Your task to perform on an android device: turn on data saver in the chrome app Image 0: 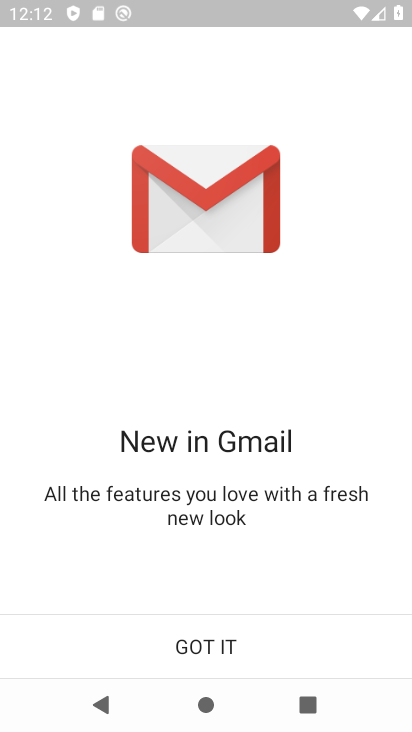
Step 0: press home button
Your task to perform on an android device: turn on data saver in the chrome app Image 1: 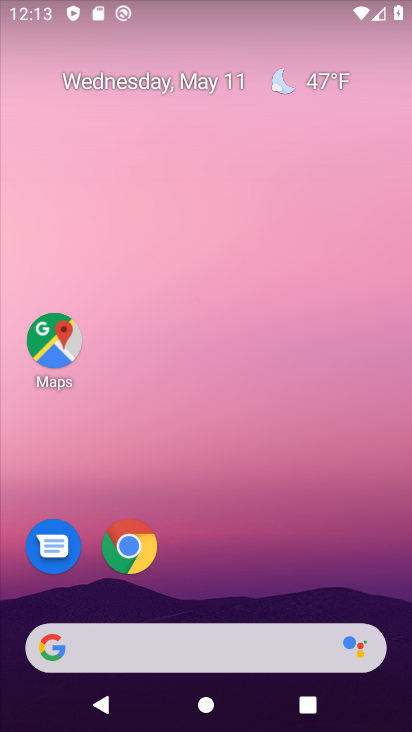
Step 1: click (120, 546)
Your task to perform on an android device: turn on data saver in the chrome app Image 2: 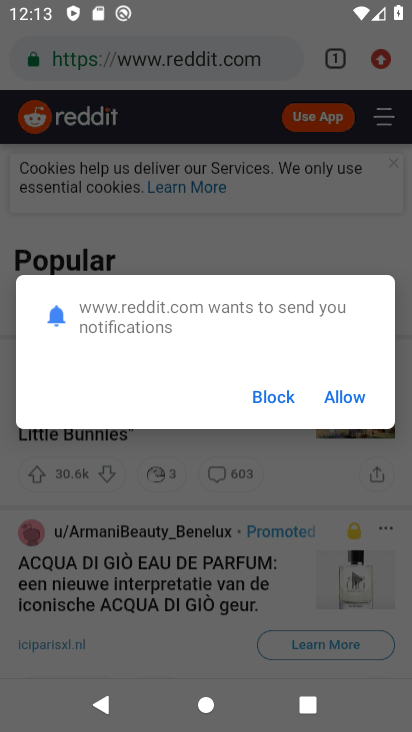
Step 2: click (271, 402)
Your task to perform on an android device: turn on data saver in the chrome app Image 3: 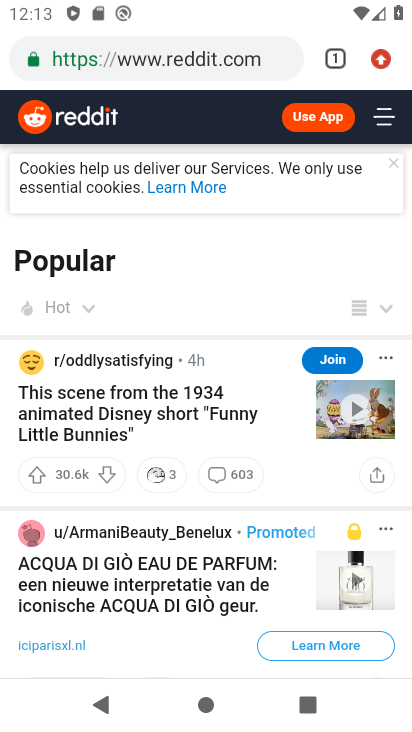
Step 3: click (381, 56)
Your task to perform on an android device: turn on data saver in the chrome app Image 4: 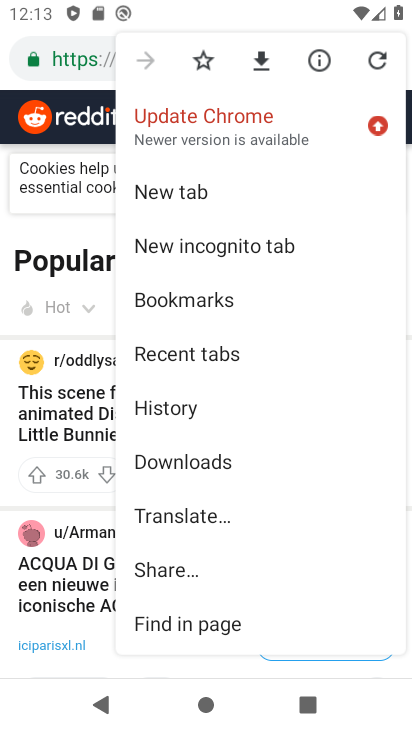
Step 4: drag from (211, 565) to (249, 294)
Your task to perform on an android device: turn on data saver in the chrome app Image 5: 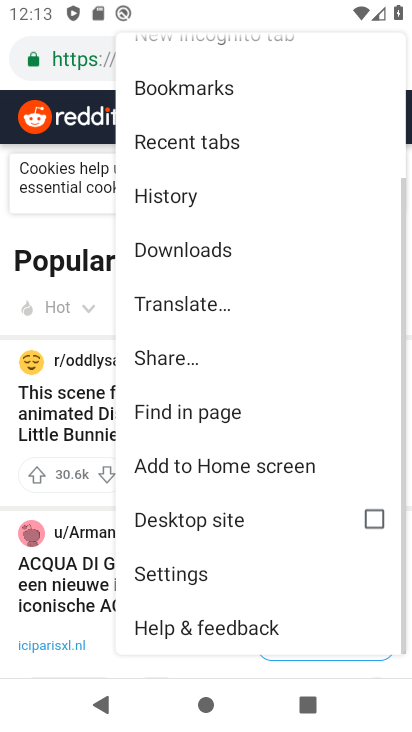
Step 5: click (204, 575)
Your task to perform on an android device: turn on data saver in the chrome app Image 6: 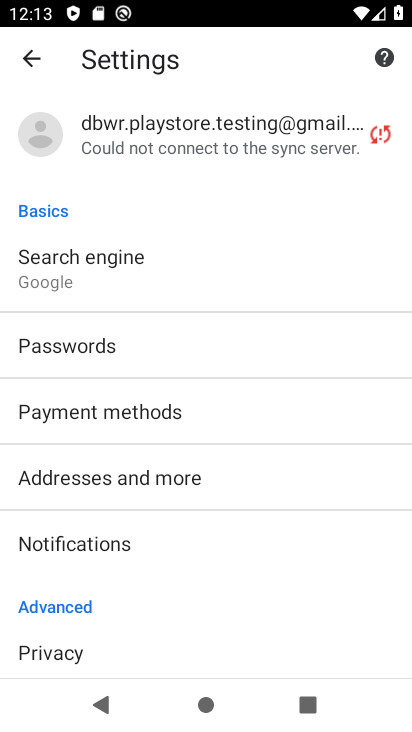
Step 6: drag from (116, 635) to (237, 200)
Your task to perform on an android device: turn on data saver in the chrome app Image 7: 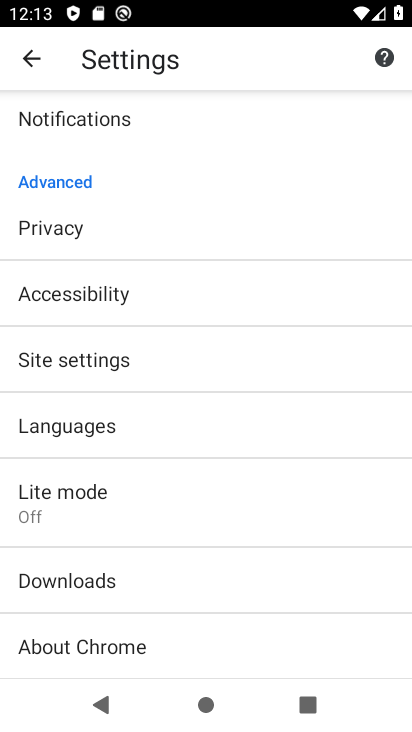
Step 7: click (92, 500)
Your task to perform on an android device: turn on data saver in the chrome app Image 8: 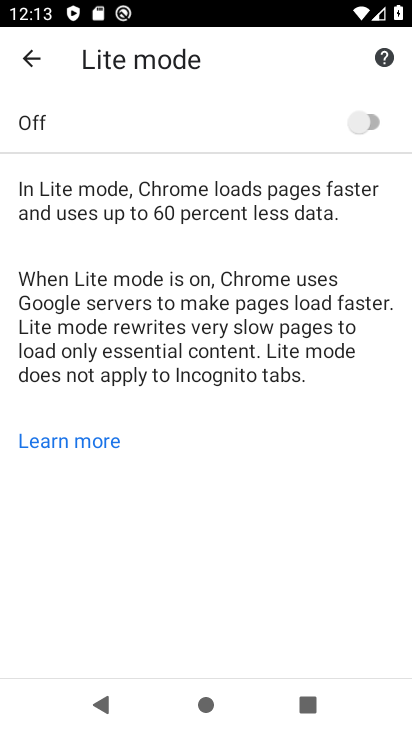
Step 8: click (361, 120)
Your task to perform on an android device: turn on data saver in the chrome app Image 9: 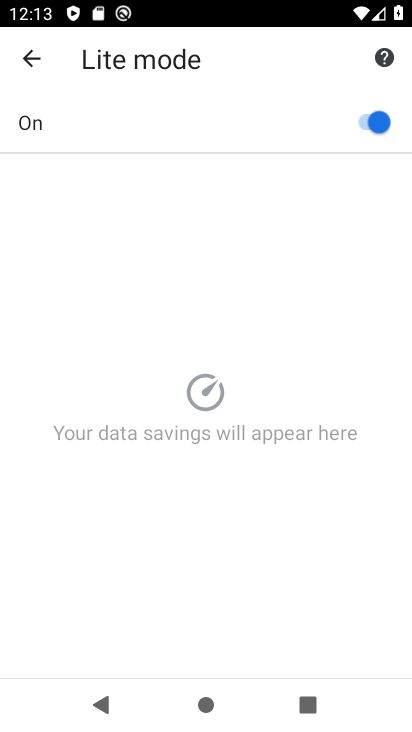
Step 9: task complete